Your task to perform on an android device: Go to calendar. Show me events next week Image 0: 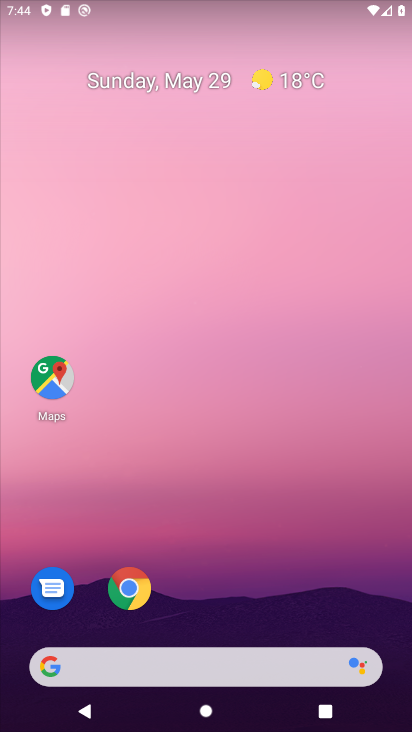
Step 0: drag from (234, 485) to (225, 121)
Your task to perform on an android device: Go to calendar. Show me events next week Image 1: 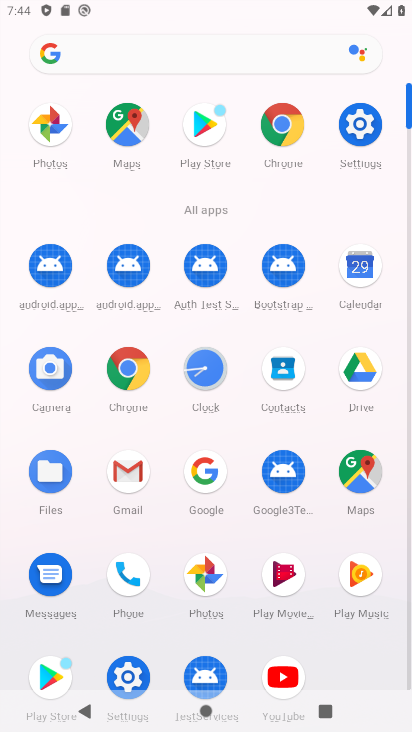
Step 1: click (358, 273)
Your task to perform on an android device: Go to calendar. Show me events next week Image 2: 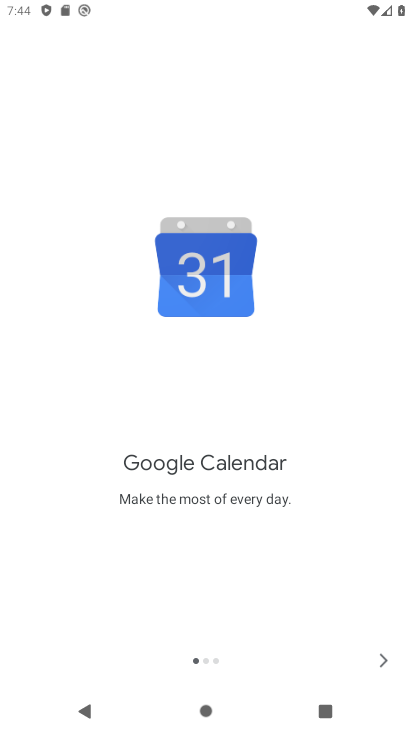
Step 2: click (381, 666)
Your task to perform on an android device: Go to calendar. Show me events next week Image 3: 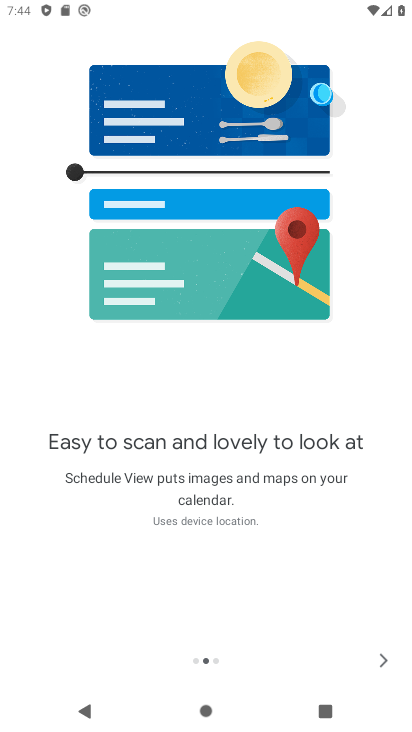
Step 3: click (386, 658)
Your task to perform on an android device: Go to calendar. Show me events next week Image 4: 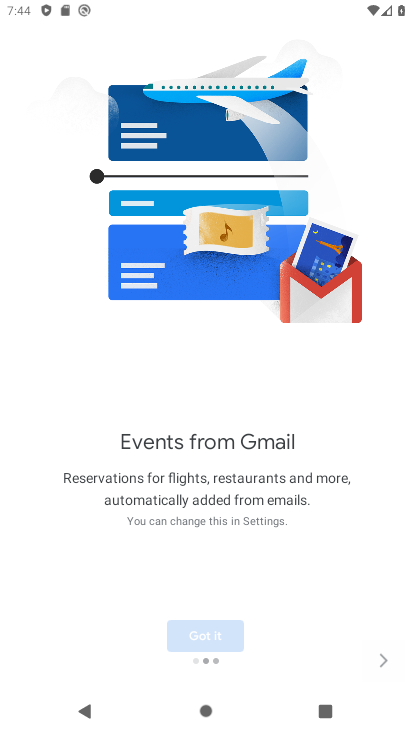
Step 4: click (386, 658)
Your task to perform on an android device: Go to calendar. Show me events next week Image 5: 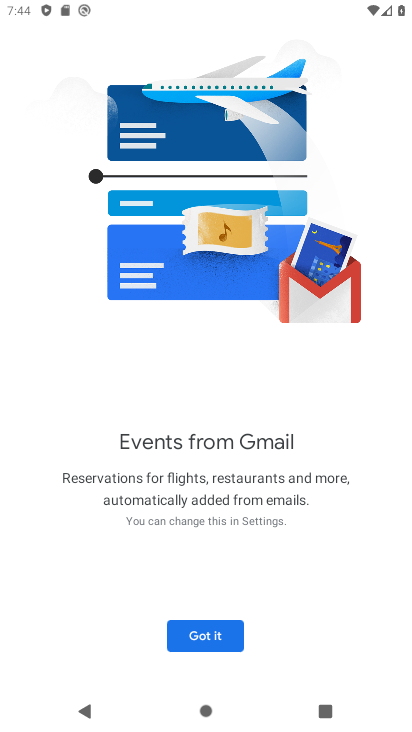
Step 5: click (218, 630)
Your task to perform on an android device: Go to calendar. Show me events next week Image 6: 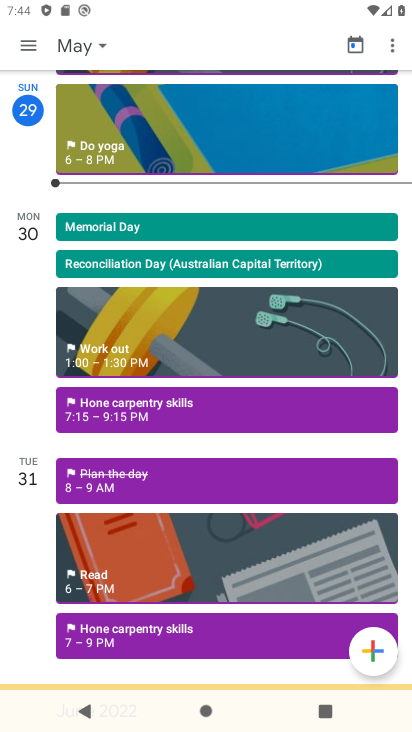
Step 6: click (87, 48)
Your task to perform on an android device: Go to calendar. Show me events next week Image 7: 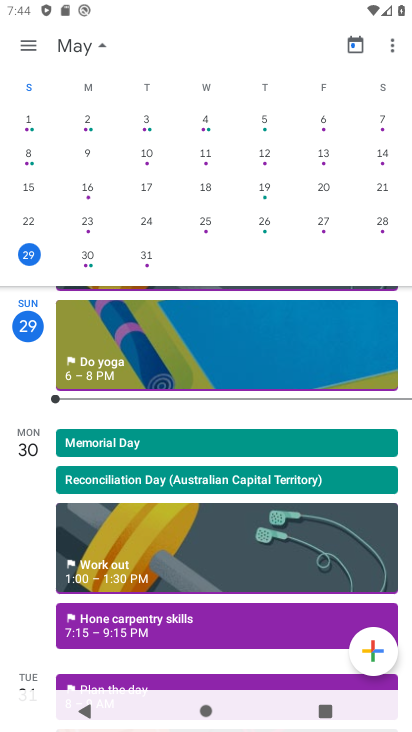
Step 7: click (145, 257)
Your task to perform on an android device: Go to calendar. Show me events next week Image 8: 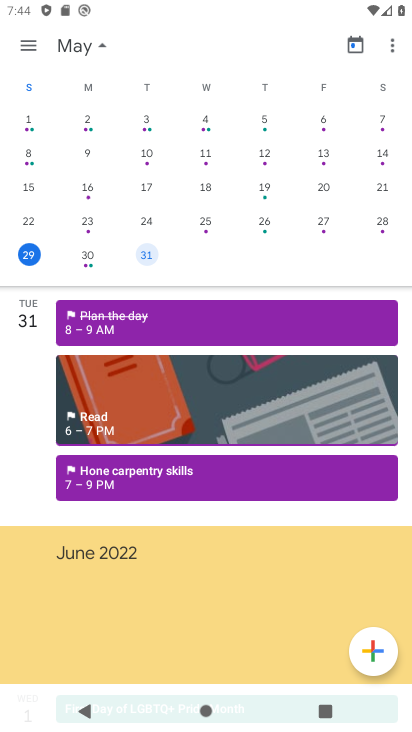
Step 8: click (94, 261)
Your task to perform on an android device: Go to calendar. Show me events next week Image 9: 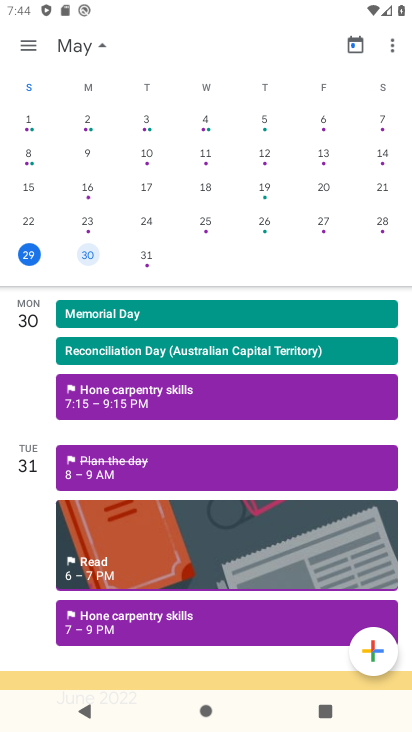
Step 9: task complete